Your task to perform on an android device: Add "logitech g502" to the cart on costco.com, then select checkout. Image 0: 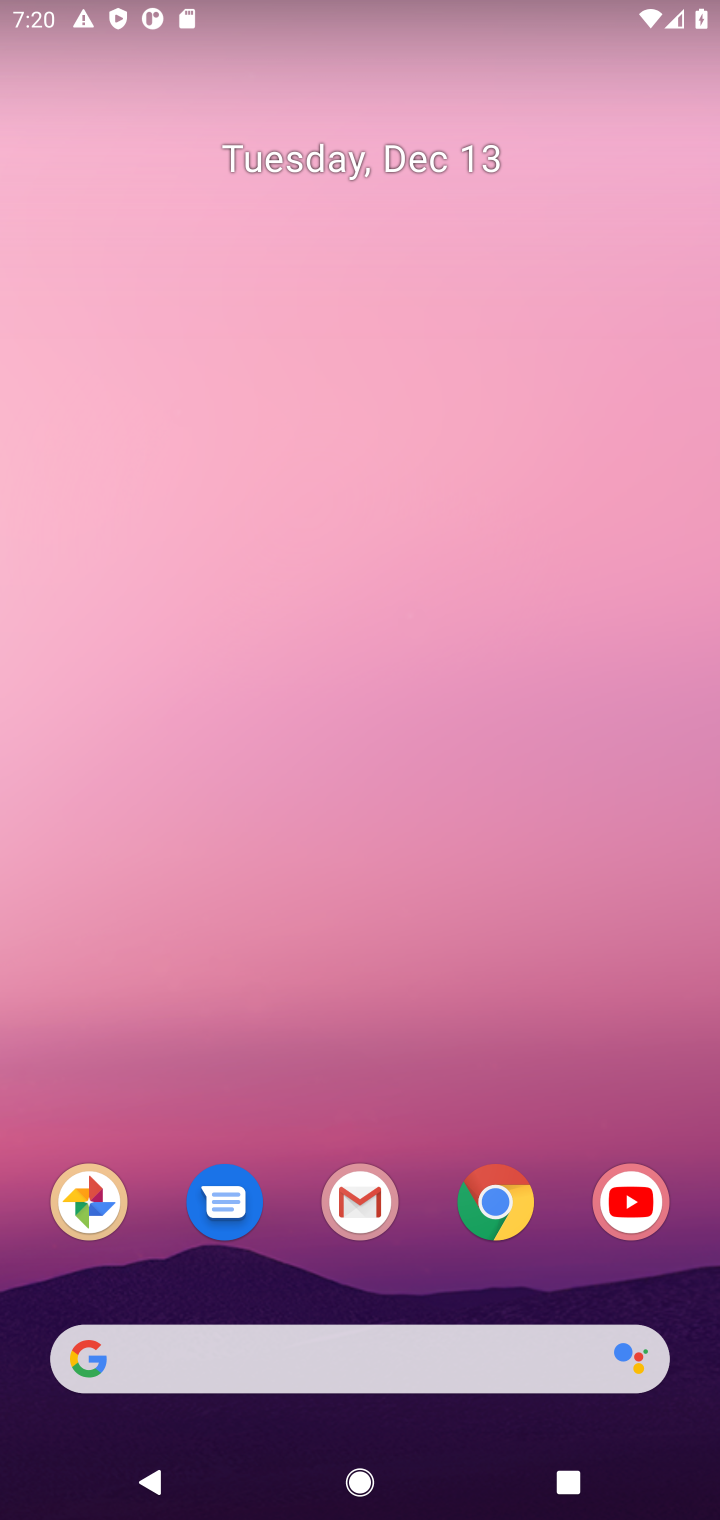
Step 0: click (499, 1210)
Your task to perform on an android device: Add "logitech g502" to the cart on costco.com, then select checkout. Image 1: 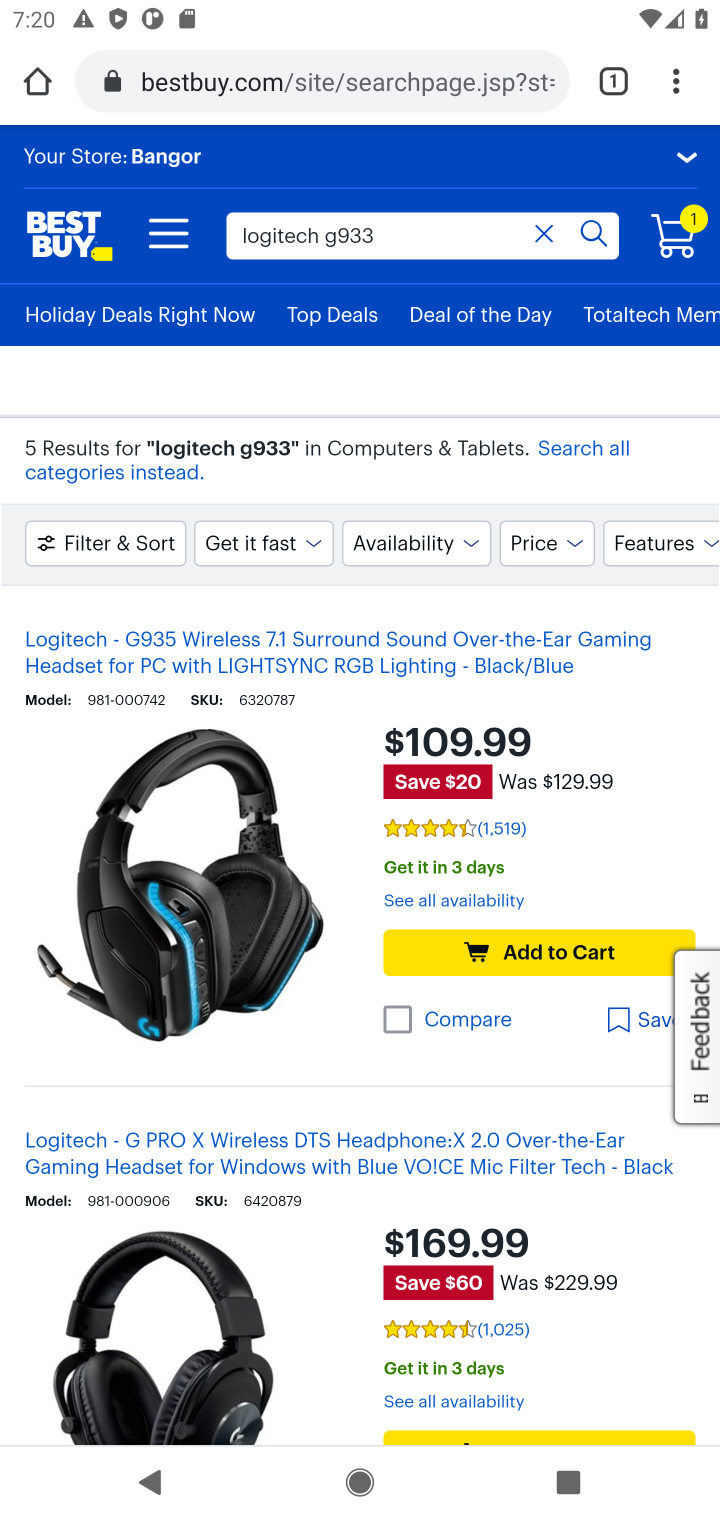
Step 1: click (272, 95)
Your task to perform on an android device: Add "logitech g502" to the cart on costco.com, then select checkout. Image 2: 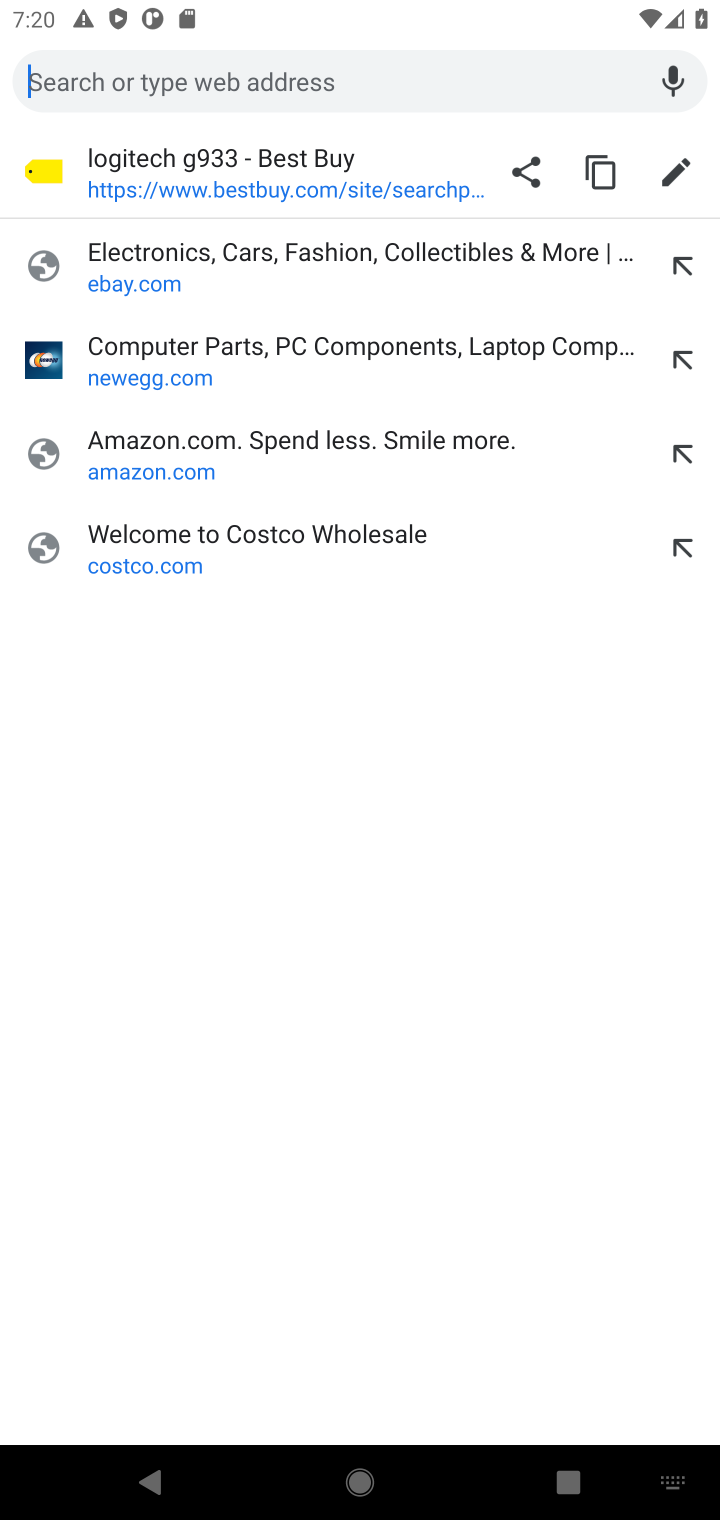
Step 2: click (120, 547)
Your task to perform on an android device: Add "logitech g502" to the cart on costco.com, then select checkout. Image 3: 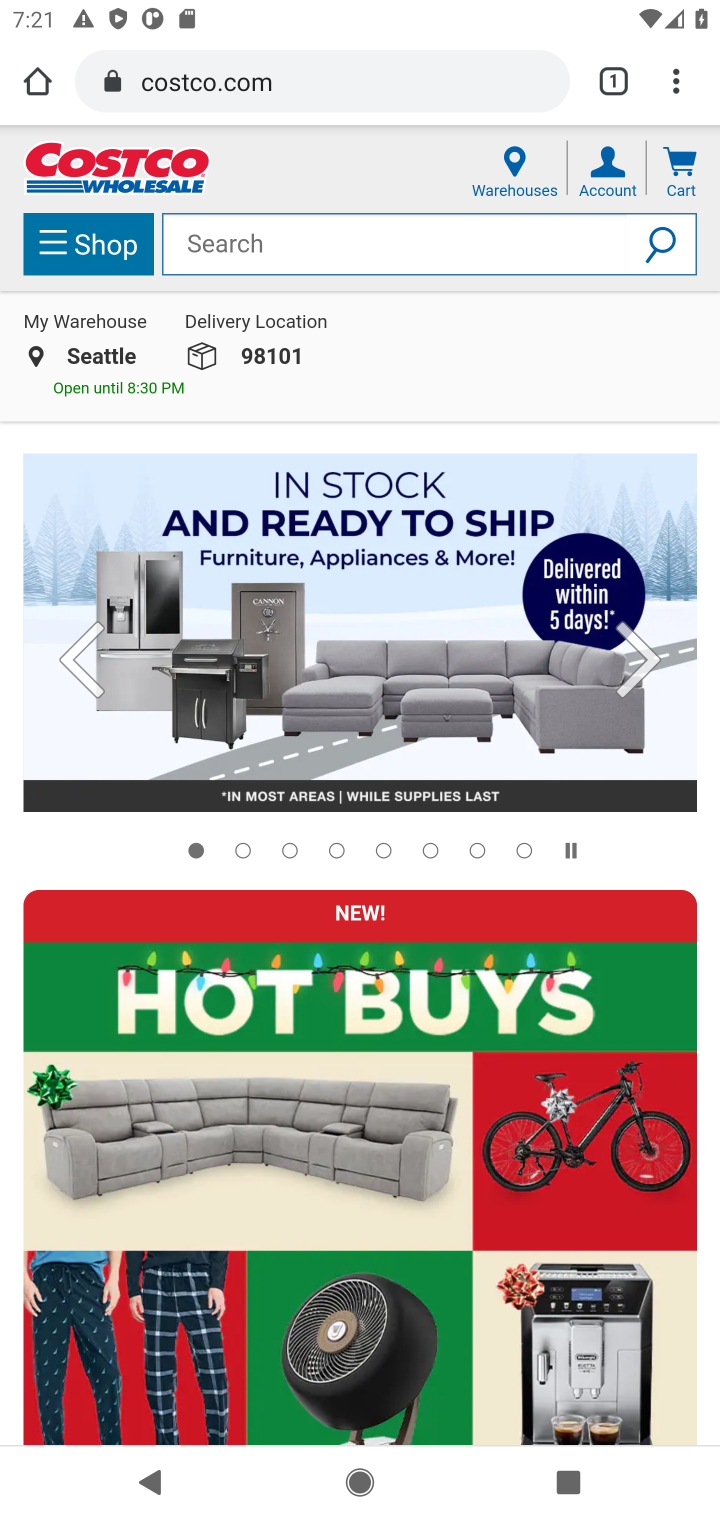
Step 3: click (243, 256)
Your task to perform on an android device: Add "logitech g502" to the cart on costco.com, then select checkout. Image 4: 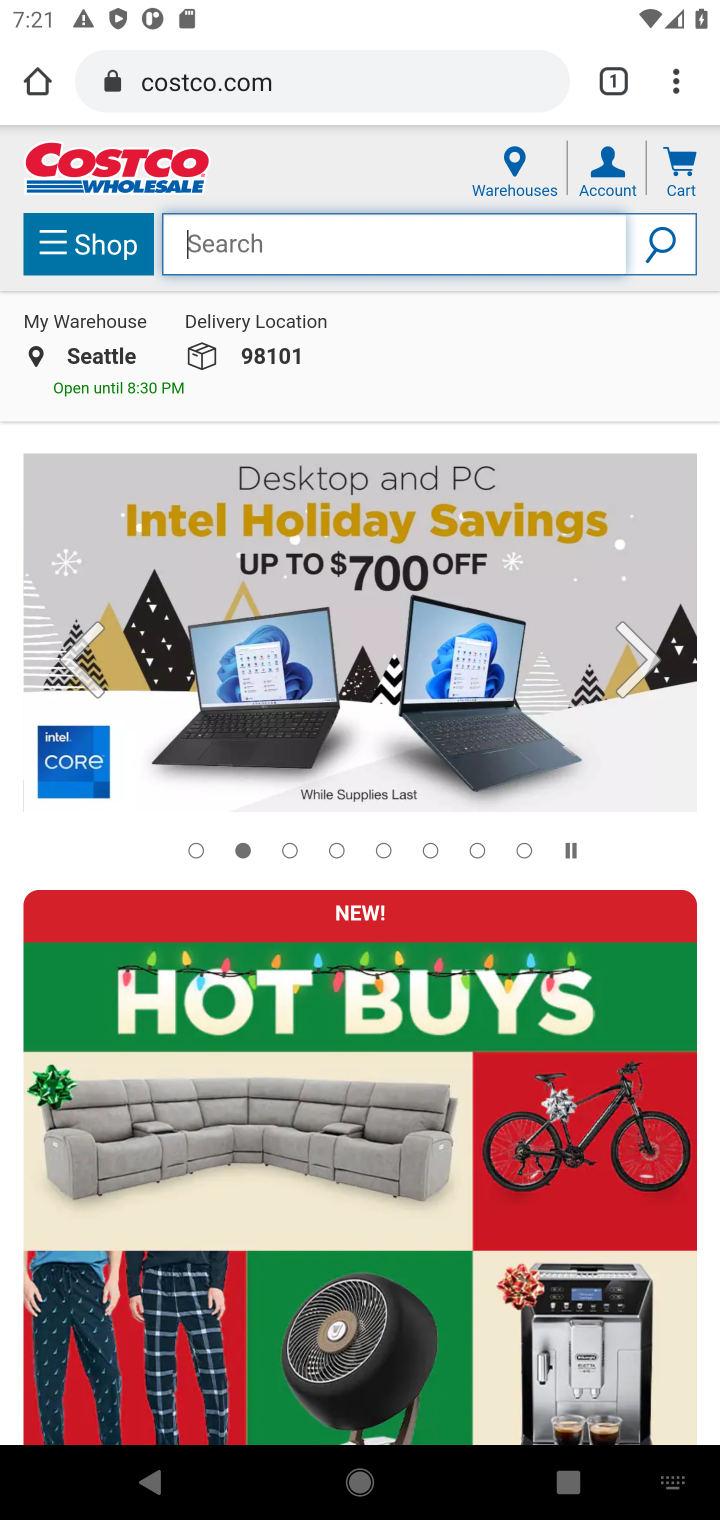
Step 4: type "logitech g502"
Your task to perform on an android device: Add "logitech g502" to the cart on costco.com, then select checkout. Image 5: 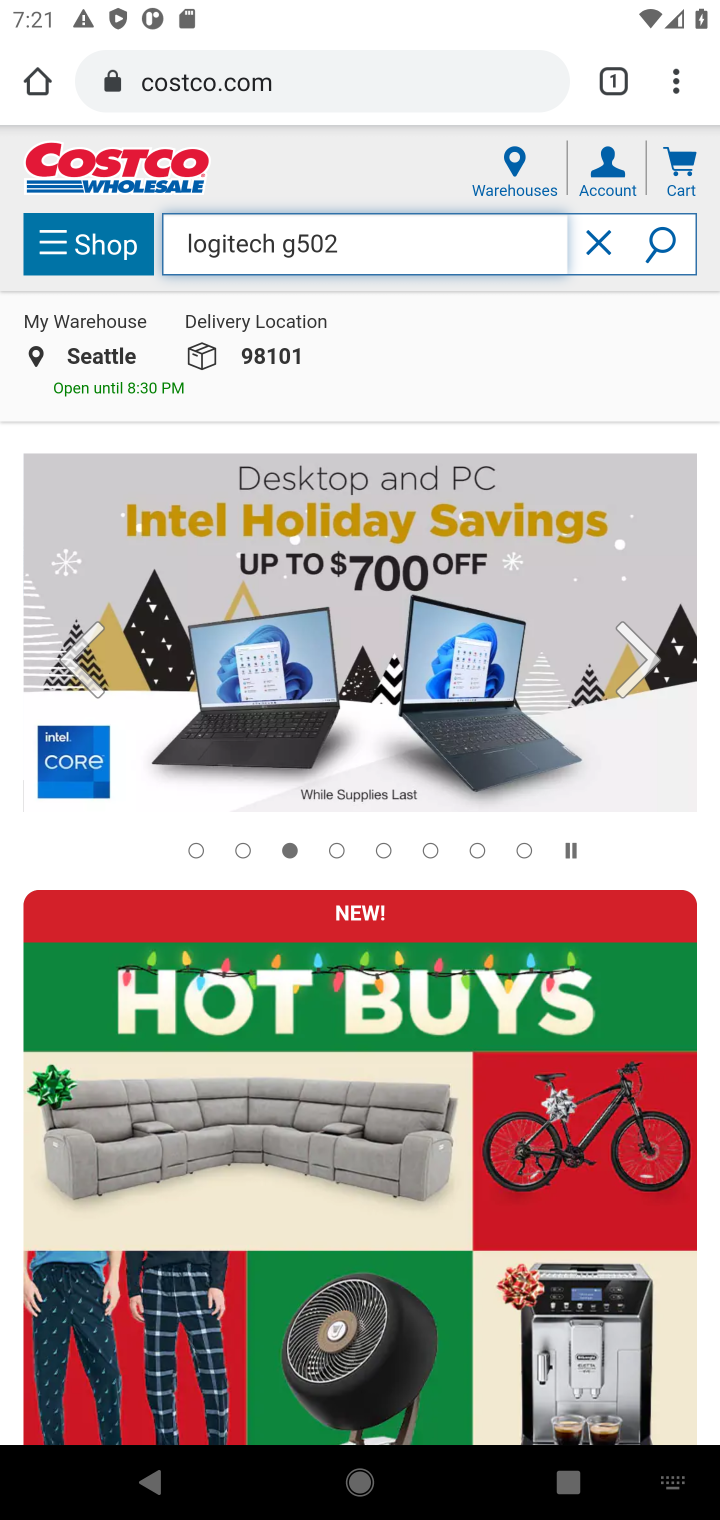
Step 5: click (654, 245)
Your task to perform on an android device: Add "logitech g502" to the cart on costco.com, then select checkout. Image 6: 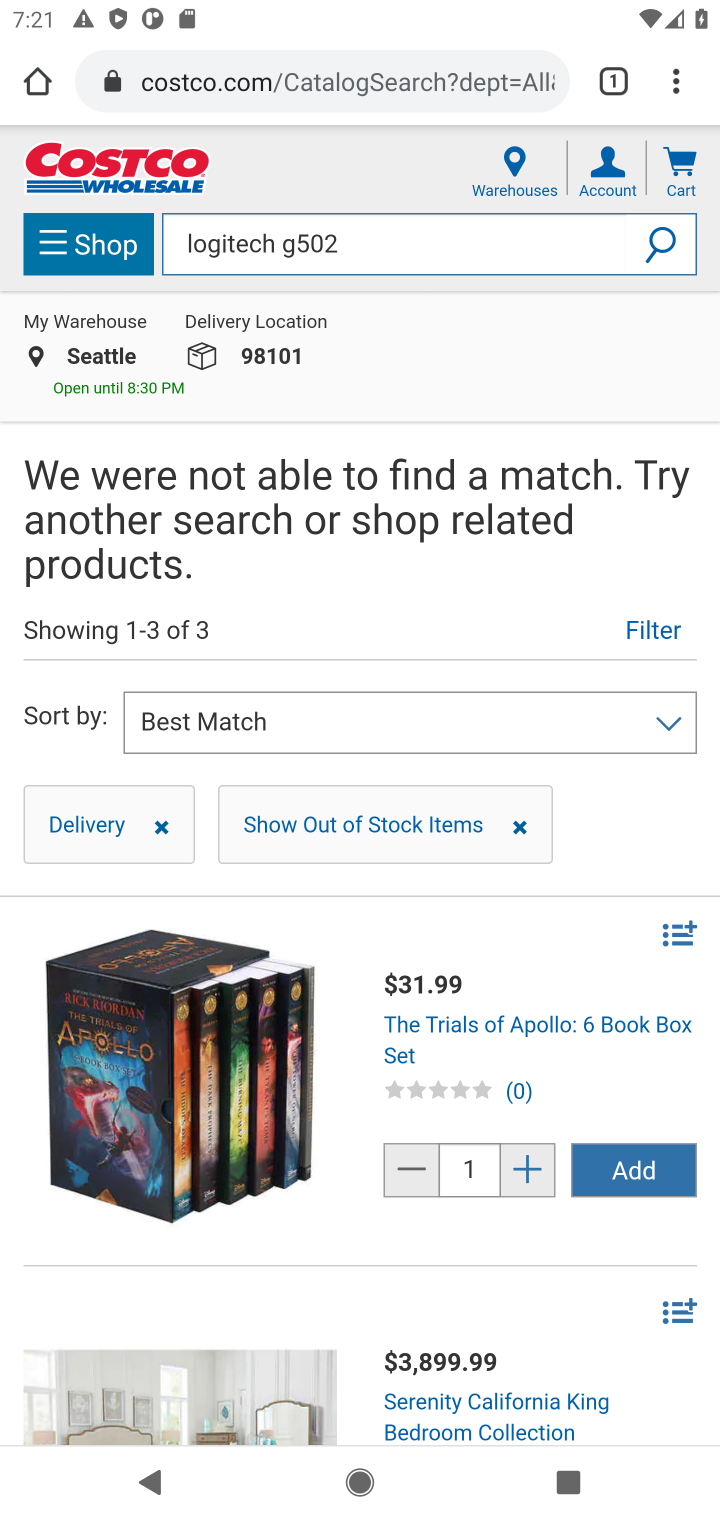
Step 6: task complete